Your task to perform on an android device: open app "Airtel Thanks" (install if not already installed) and go to login screen Image 0: 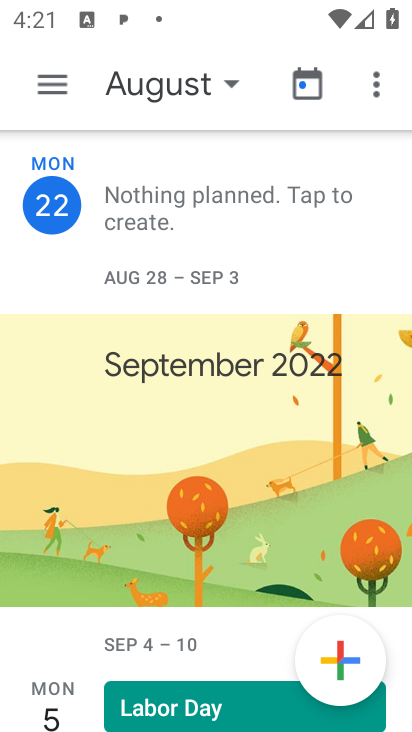
Step 0: press home button
Your task to perform on an android device: open app "Airtel Thanks" (install if not already installed) and go to login screen Image 1: 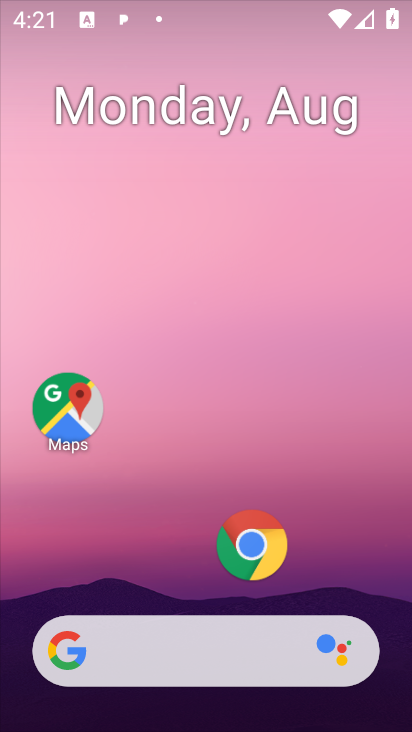
Step 1: drag from (158, 586) to (225, 122)
Your task to perform on an android device: open app "Airtel Thanks" (install if not already installed) and go to login screen Image 2: 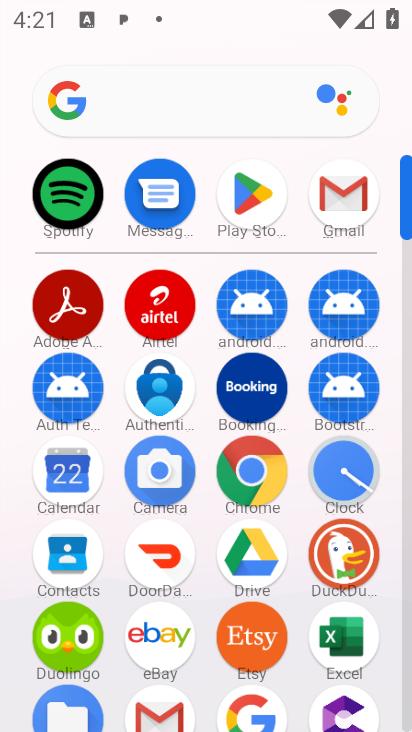
Step 2: click (260, 184)
Your task to perform on an android device: open app "Airtel Thanks" (install if not already installed) and go to login screen Image 3: 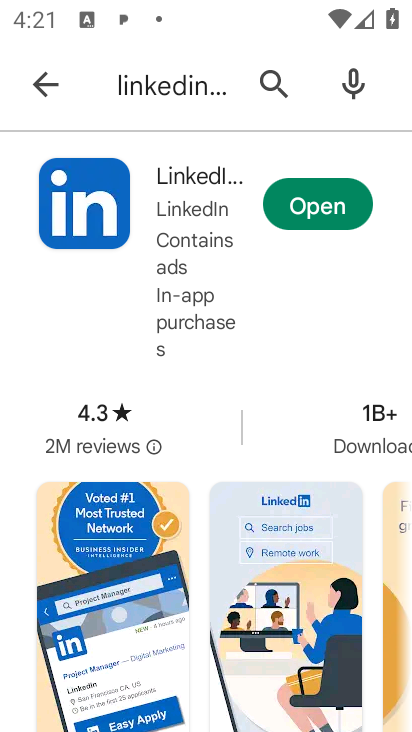
Step 3: click (255, 68)
Your task to perform on an android device: open app "Airtel Thanks" (install if not already installed) and go to login screen Image 4: 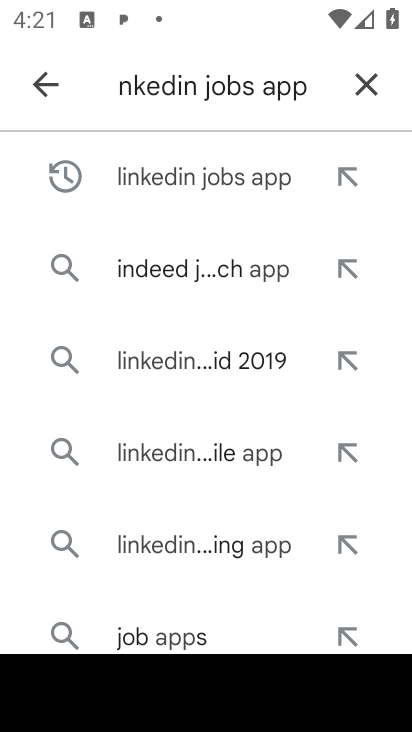
Step 4: click (359, 80)
Your task to perform on an android device: open app "Airtel Thanks" (install if not already installed) and go to login screen Image 5: 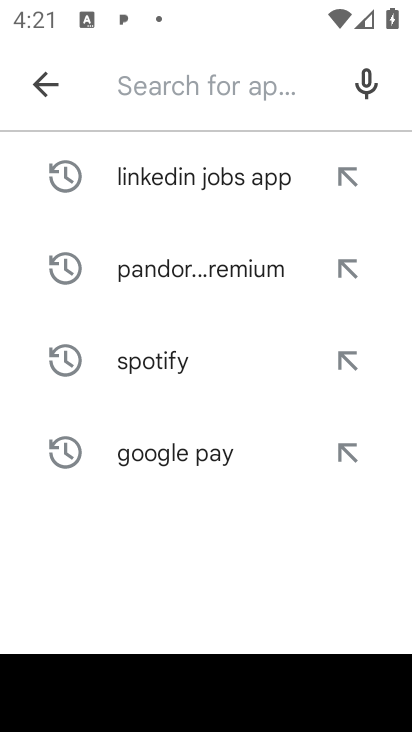
Step 5: click (185, 75)
Your task to perform on an android device: open app "Airtel Thanks" (install if not already installed) and go to login screen Image 6: 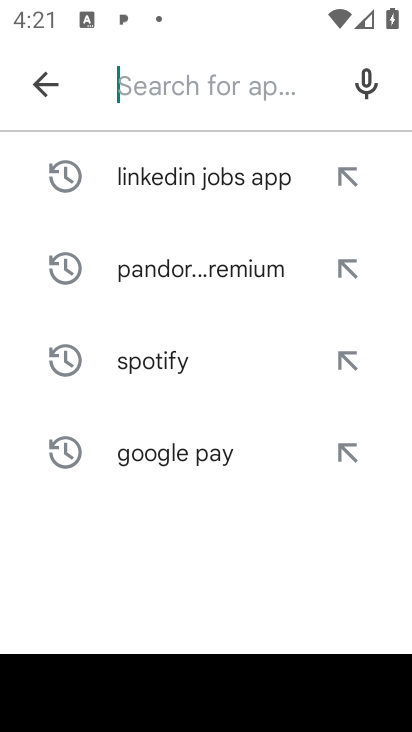
Step 6: type "Airtel Thanks"
Your task to perform on an android device: open app "Airtel Thanks" (install if not already installed) and go to login screen Image 7: 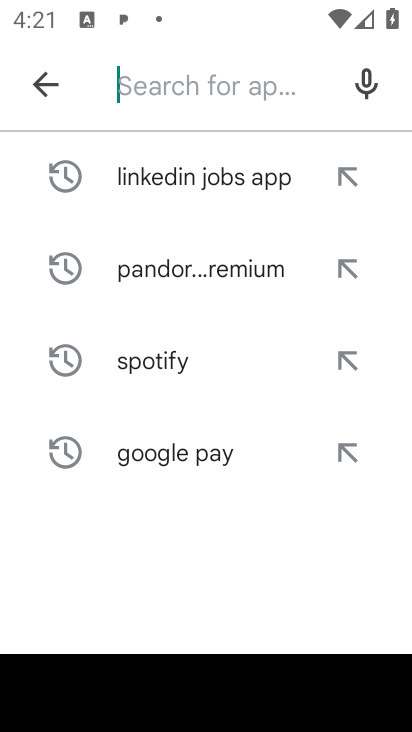
Step 7: click (138, 578)
Your task to perform on an android device: open app "Airtel Thanks" (install if not already installed) and go to login screen Image 8: 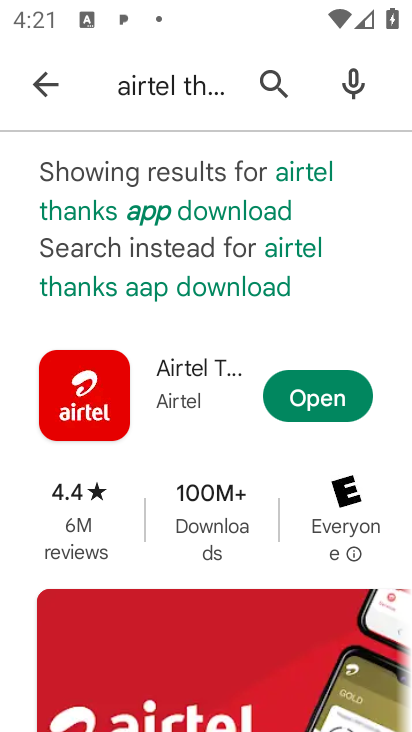
Step 8: click (286, 400)
Your task to perform on an android device: open app "Airtel Thanks" (install if not already installed) and go to login screen Image 9: 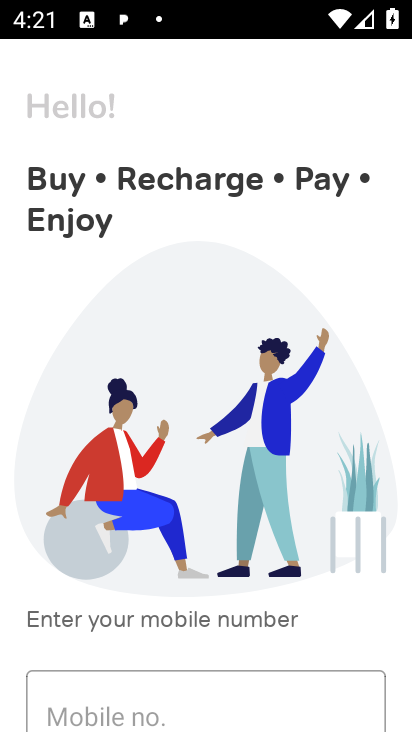
Step 9: task complete